Your task to perform on an android device: toggle javascript in the chrome app Image 0: 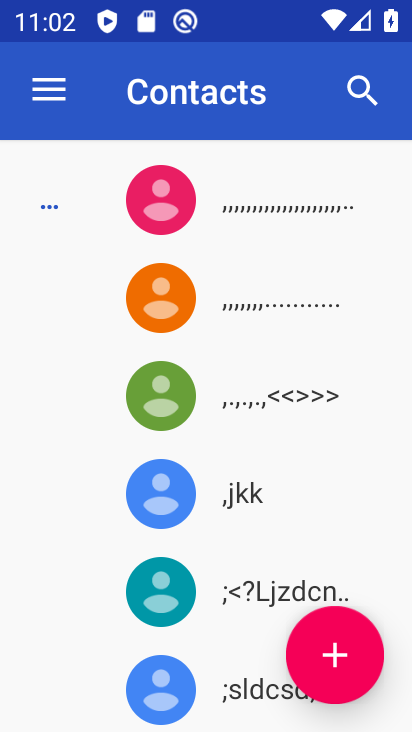
Step 0: press home button
Your task to perform on an android device: toggle javascript in the chrome app Image 1: 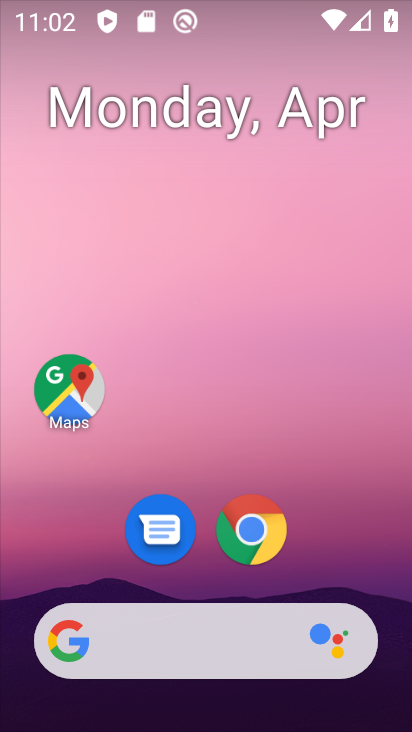
Step 1: drag from (344, 559) to (263, 24)
Your task to perform on an android device: toggle javascript in the chrome app Image 2: 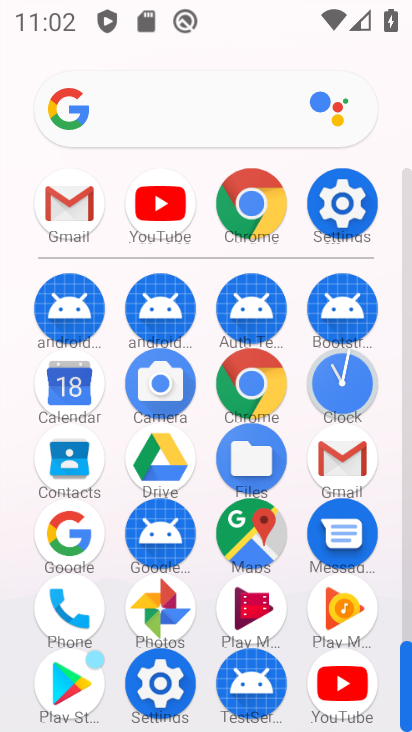
Step 2: click (250, 385)
Your task to perform on an android device: toggle javascript in the chrome app Image 3: 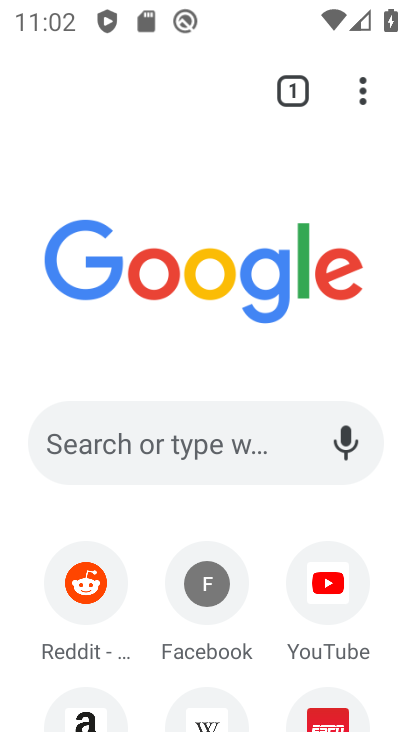
Step 3: click (361, 89)
Your task to perform on an android device: toggle javascript in the chrome app Image 4: 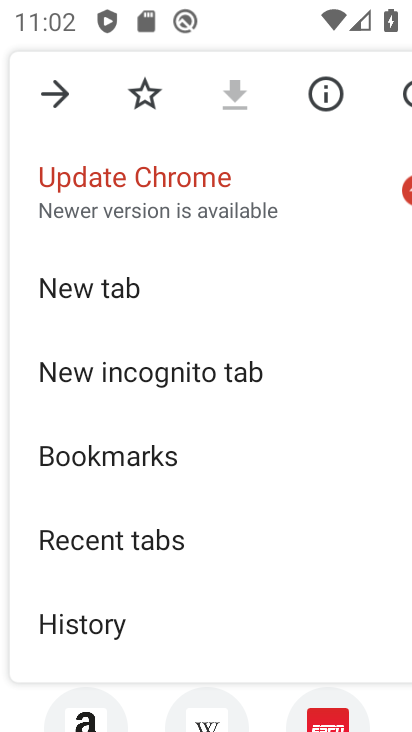
Step 4: drag from (151, 626) to (218, 198)
Your task to perform on an android device: toggle javascript in the chrome app Image 5: 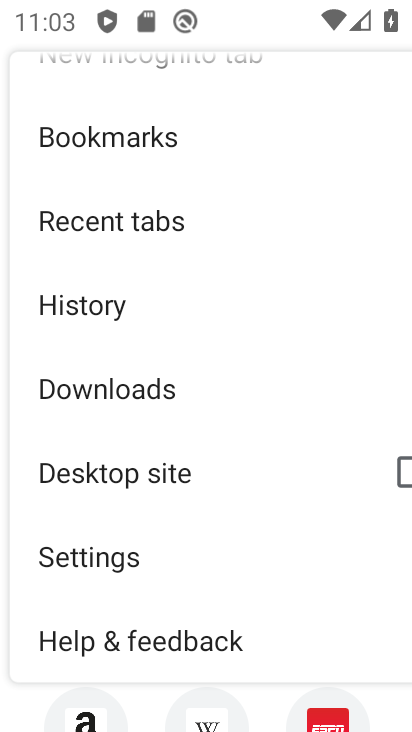
Step 5: click (130, 563)
Your task to perform on an android device: toggle javascript in the chrome app Image 6: 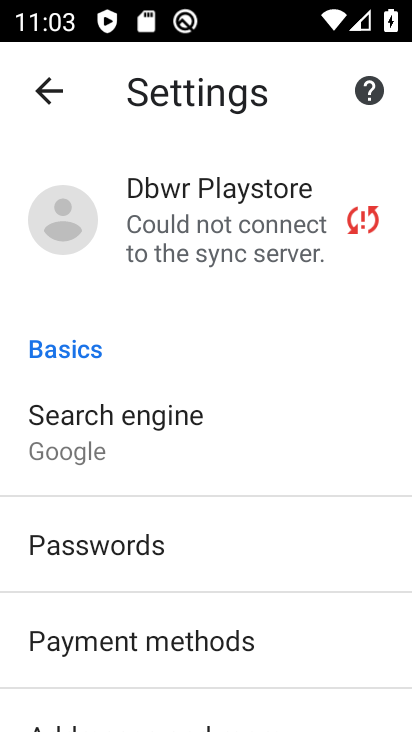
Step 6: drag from (24, 693) to (166, 147)
Your task to perform on an android device: toggle javascript in the chrome app Image 7: 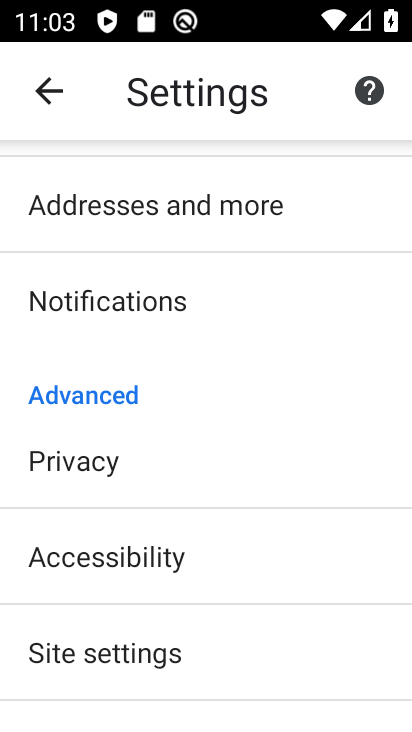
Step 7: click (131, 654)
Your task to perform on an android device: toggle javascript in the chrome app Image 8: 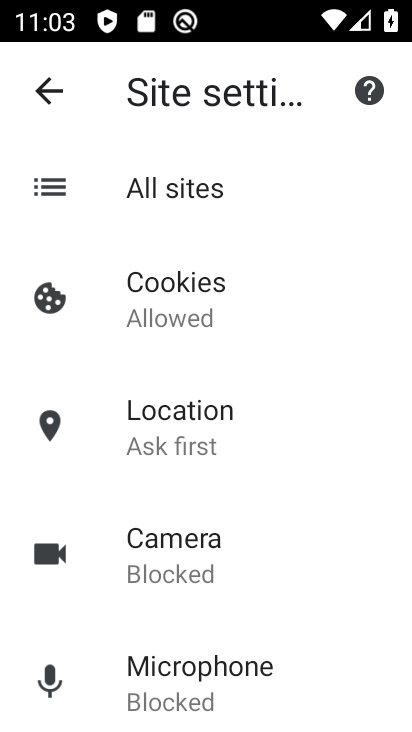
Step 8: drag from (183, 612) to (288, 146)
Your task to perform on an android device: toggle javascript in the chrome app Image 9: 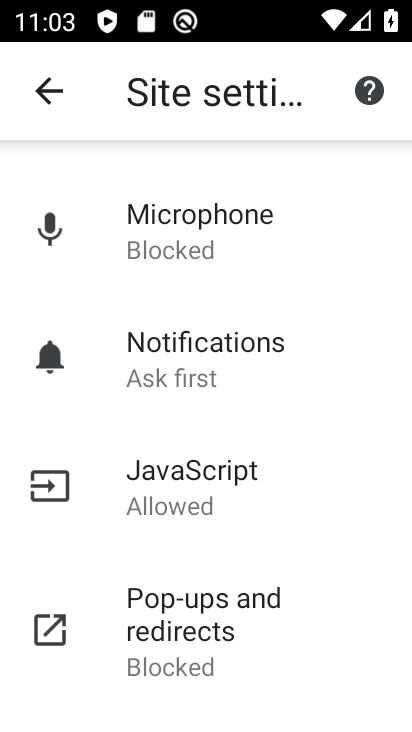
Step 9: click (227, 479)
Your task to perform on an android device: toggle javascript in the chrome app Image 10: 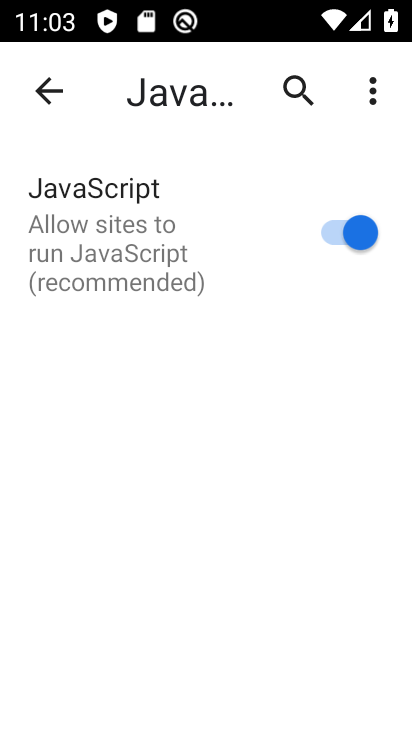
Step 10: click (320, 213)
Your task to perform on an android device: toggle javascript in the chrome app Image 11: 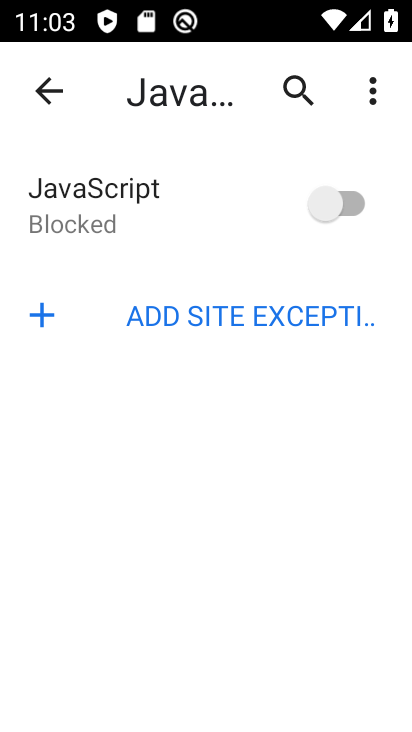
Step 11: task complete